Your task to perform on an android device: open a new tab in the chrome app Image 0: 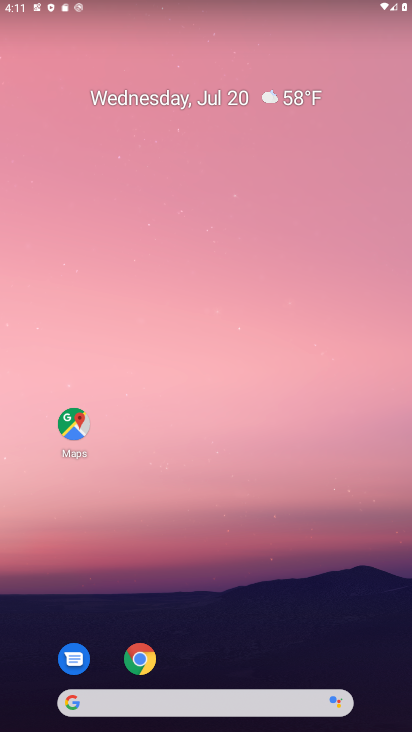
Step 0: drag from (239, 621) to (178, 226)
Your task to perform on an android device: open a new tab in the chrome app Image 1: 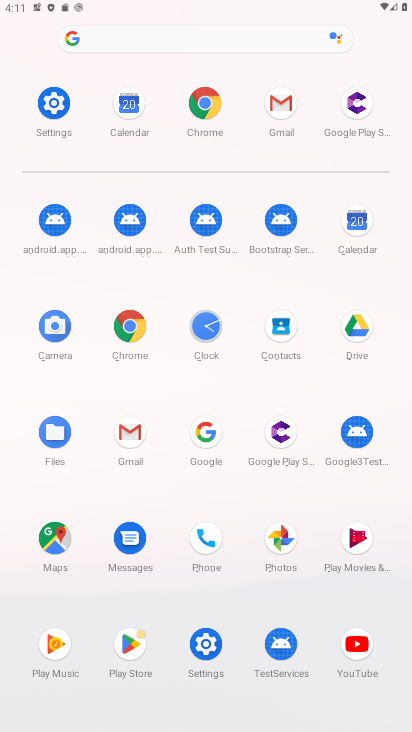
Step 1: click (204, 113)
Your task to perform on an android device: open a new tab in the chrome app Image 2: 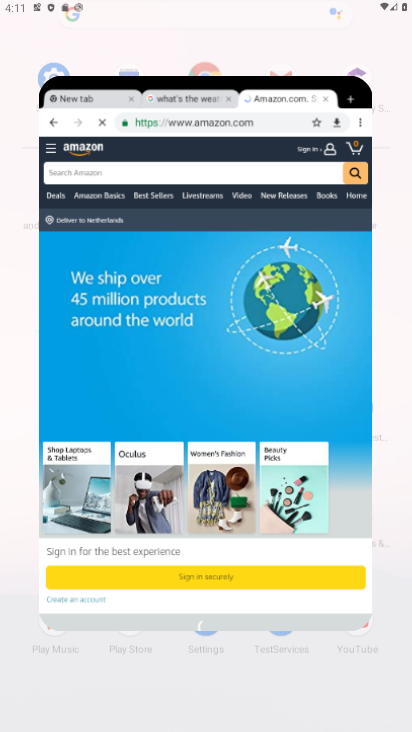
Step 2: click (206, 105)
Your task to perform on an android device: open a new tab in the chrome app Image 3: 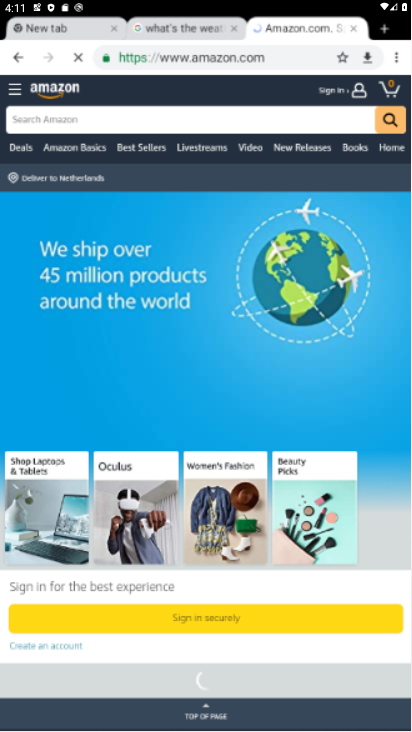
Step 3: click (206, 104)
Your task to perform on an android device: open a new tab in the chrome app Image 4: 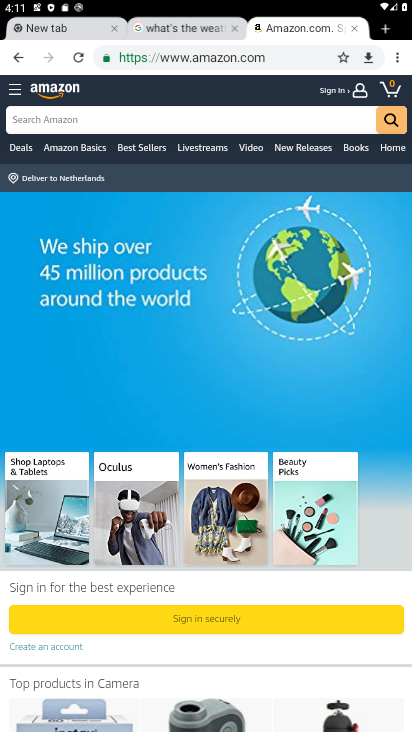
Step 4: drag from (394, 65) to (265, 55)
Your task to perform on an android device: open a new tab in the chrome app Image 5: 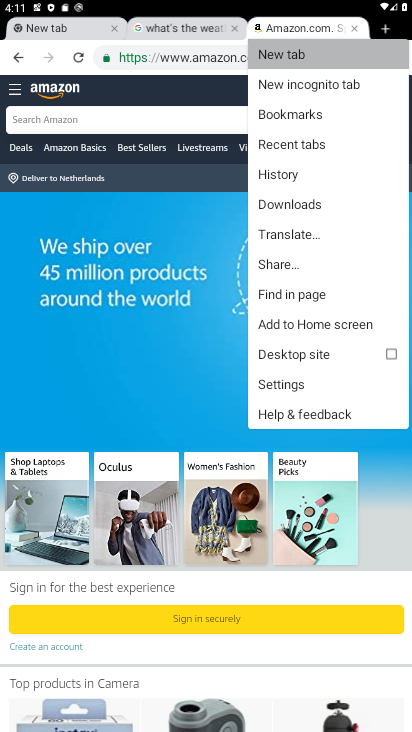
Step 5: click (266, 54)
Your task to perform on an android device: open a new tab in the chrome app Image 6: 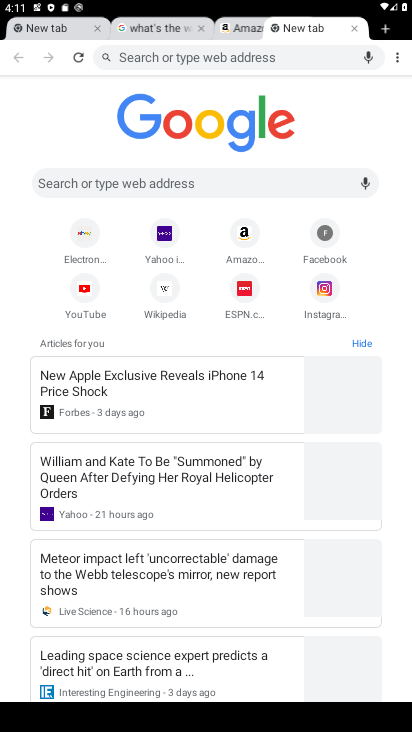
Step 6: task complete